Your task to perform on an android device: Open Maps and search for coffee Image 0: 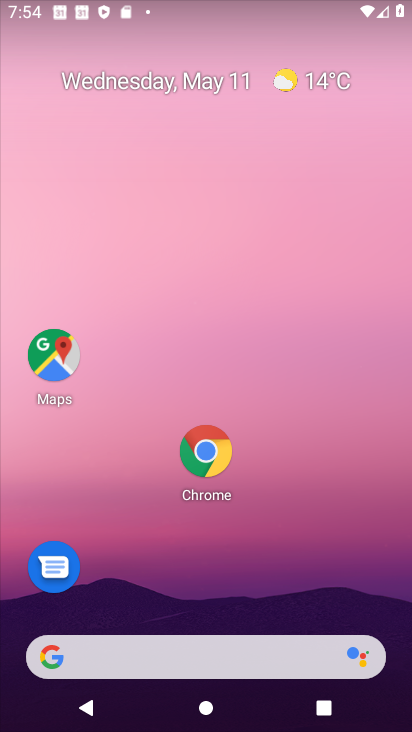
Step 0: press home button
Your task to perform on an android device: Open Maps and search for coffee Image 1: 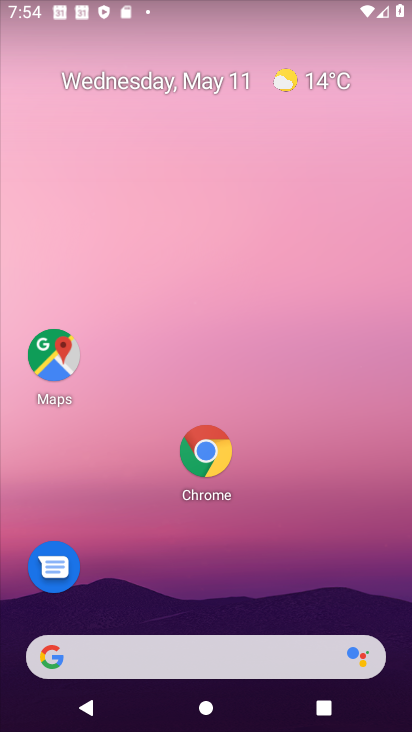
Step 1: click (54, 360)
Your task to perform on an android device: Open Maps and search for coffee Image 2: 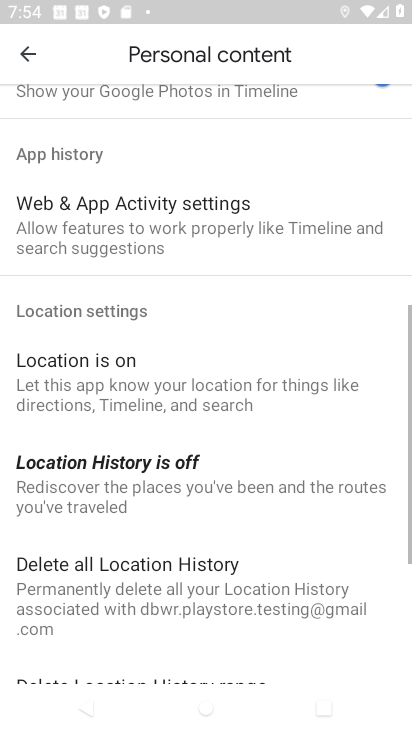
Step 2: click (29, 53)
Your task to perform on an android device: Open Maps and search for coffee Image 3: 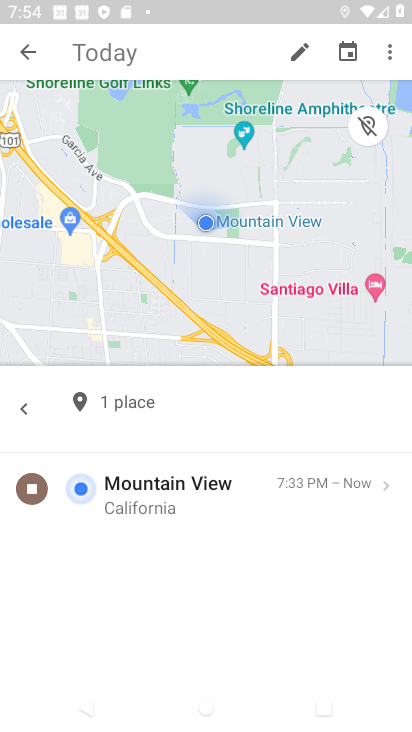
Step 3: click (29, 53)
Your task to perform on an android device: Open Maps and search for coffee Image 4: 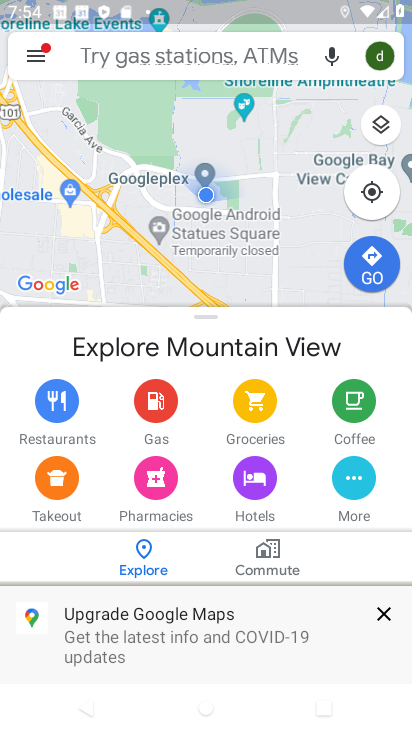
Step 4: click (166, 56)
Your task to perform on an android device: Open Maps and search for coffee Image 5: 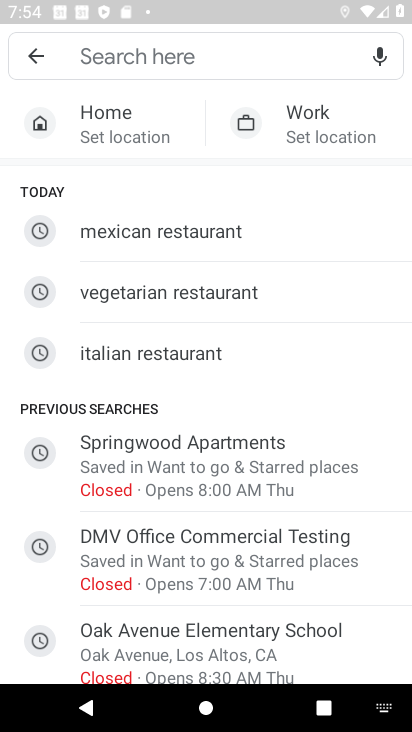
Step 5: type "coffee"
Your task to perform on an android device: Open Maps and search for coffee Image 6: 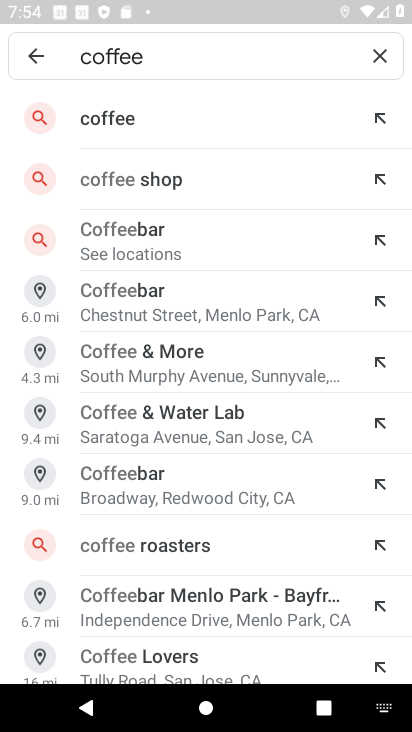
Step 6: click (120, 121)
Your task to perform on an android device: Open Maps and search for coffee Image 7: 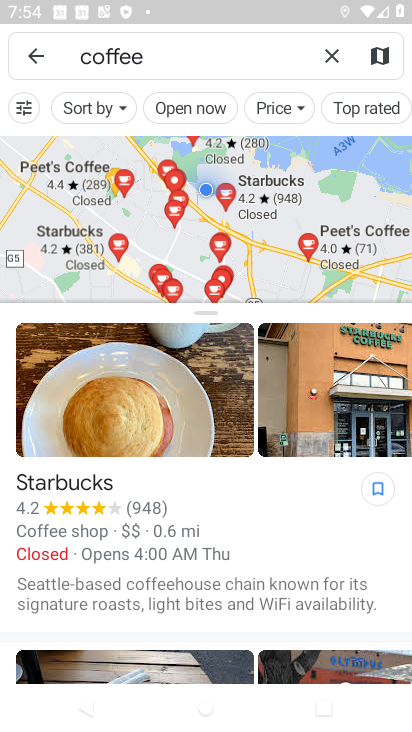
Step 7: task complete